Your task to perform on an android device: Open battery settings Image 0: 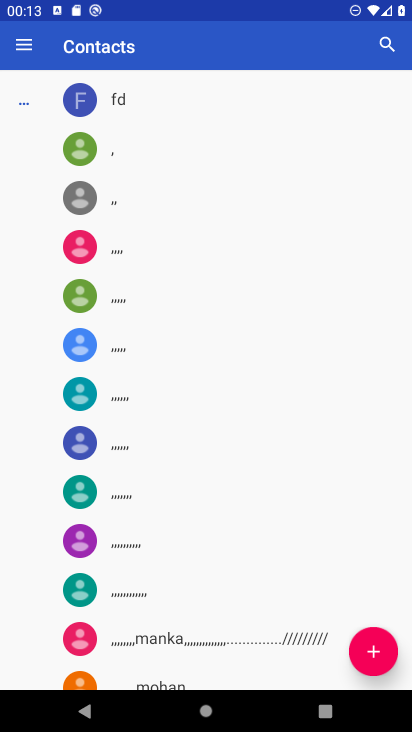
Step 0: press home button
Your task to perform on an android device: Open battery settings Image 1: 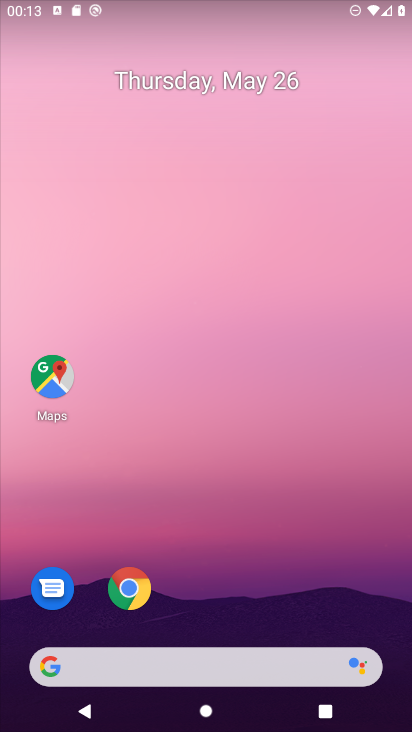
Step 1: drag from (37, 536) to (115, 369)
Your task to perform on an android device: Open battery settings Image 2: 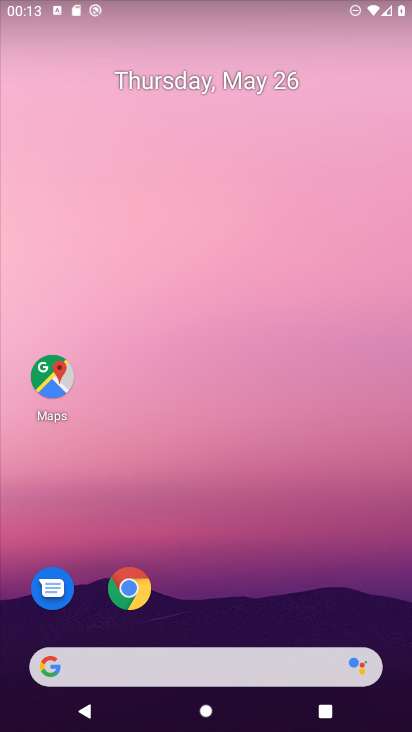
Step 2: drag from (14, 701) to (197, 211)
Your task to perform on an android device: Open battery settings Image 3: 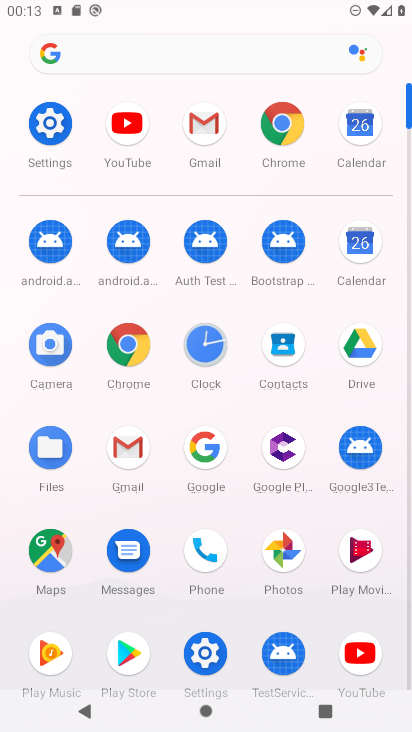
Step 3: click (41, 129)
Your task to perform on an android device: Open battery settings Image 4: 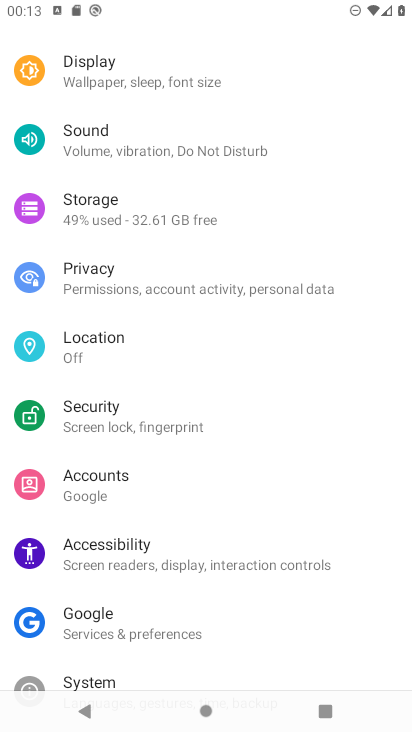
Step 4: drag from (125, 158) to (122, 564)
Your task to perform on an android device: Open battery settings Image 5: 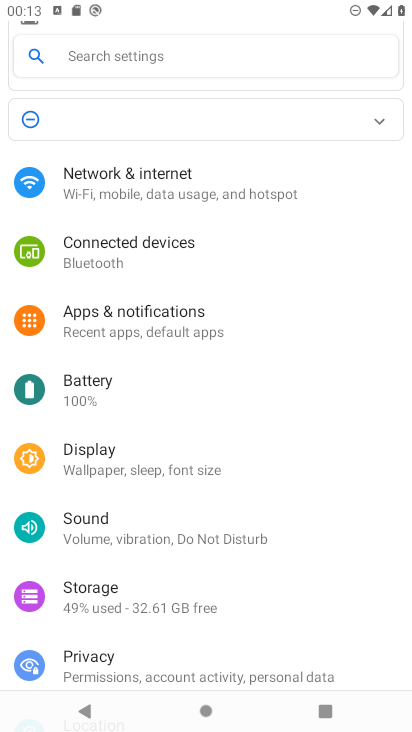
Step 5: click (136, 378)
Your task to perform on an android device: Open battery settings Image 6: 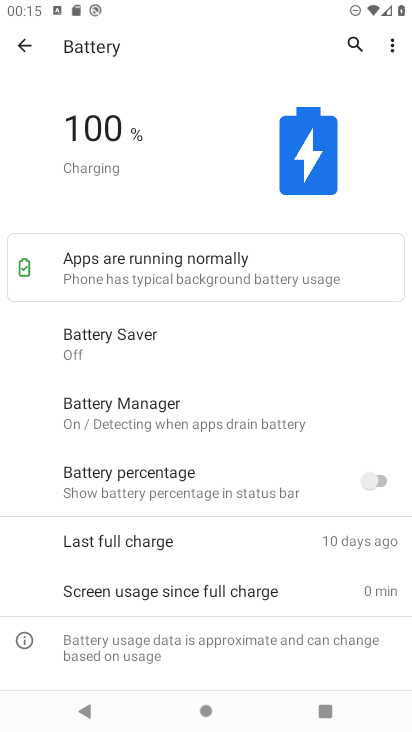
Step 6: task complete